Your task to perform on an android device: turn off smart reply in the gmail app Image 0: 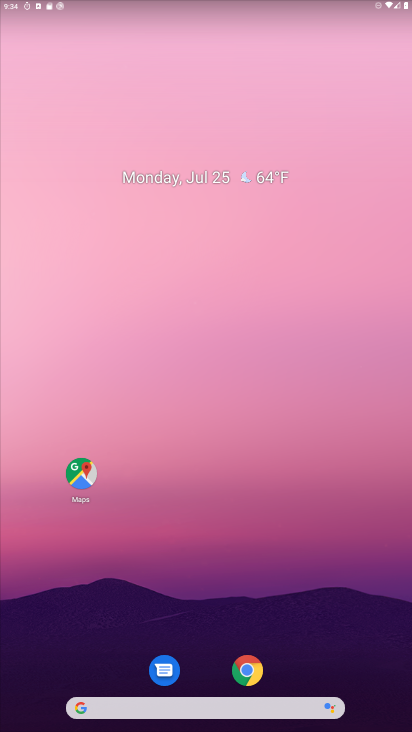
Step 0: drag from (366, 665) to (228, 49)
Your task to perform on an android device: turn off smart reply in the gmail app Image 1: 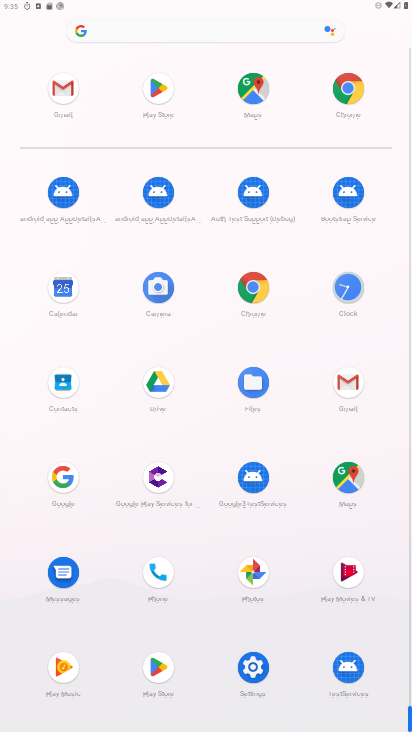
Step 1: click (354, 385)
Your task to perform on an android device: turn off smart reply in the gmail app Image 2: 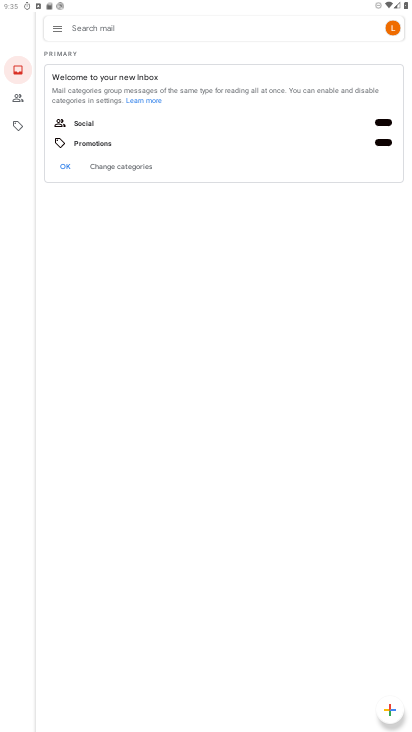
Step 2: click (59, 24)
Your task to perform on an android device: turn off smart reply in the gmail app Image 3: 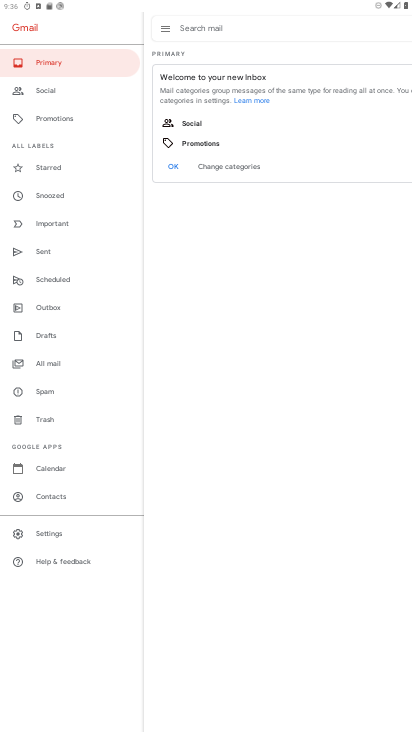
Step 3: click (69, 539)
Your task to perform on an android device: turn off smart reply in the gmail app Image 4: 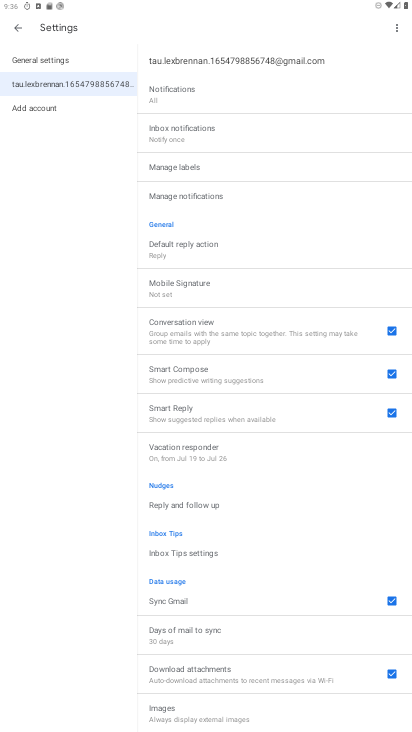
Step 4: drag from (220, 527) to (176, 134)
Your task to perform on an android device: turn off smart reply in the gmail app Image 5: 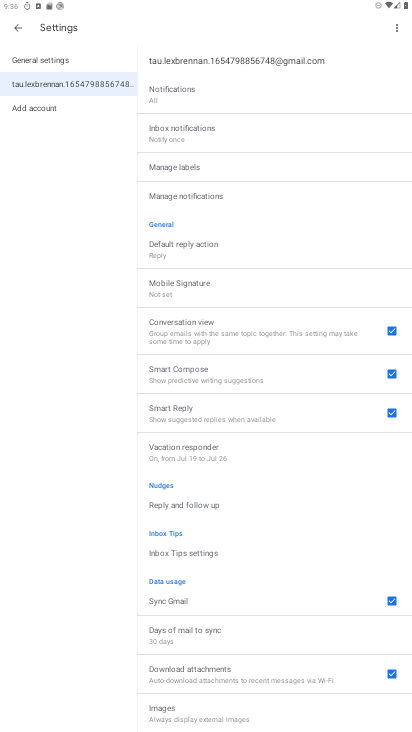
Step 5: click (260, 423)
Your task to perform on an android device: turn off smart reply in the gmail app Image 6: 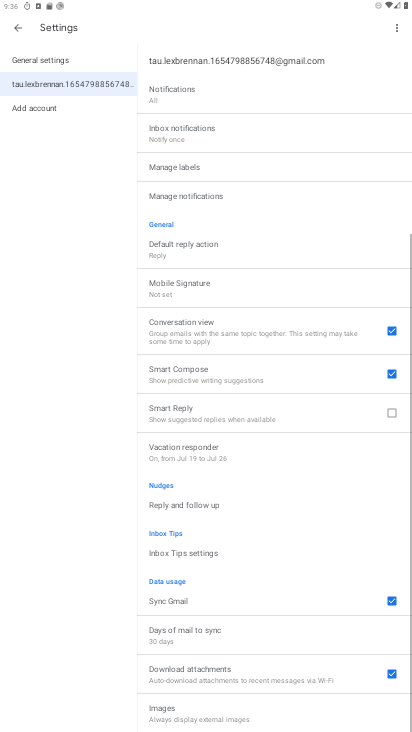
Step 6: task complete